Your task to perform on an android device: change notification settings in the gmail app Image 0: 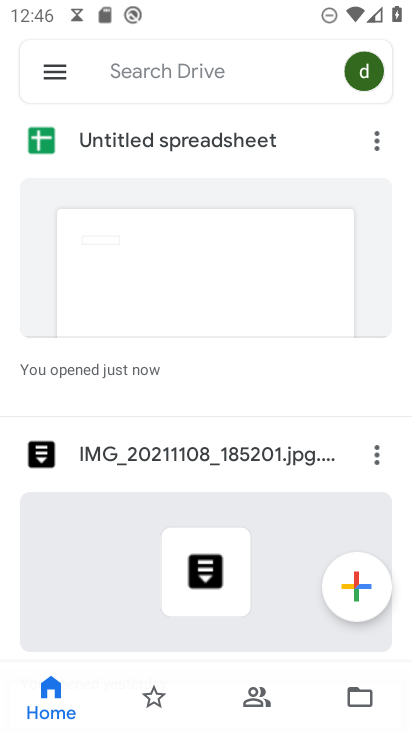
Step 0: press home button
Your task to perform on an android device: change notification settings in the gmail app Image 1: 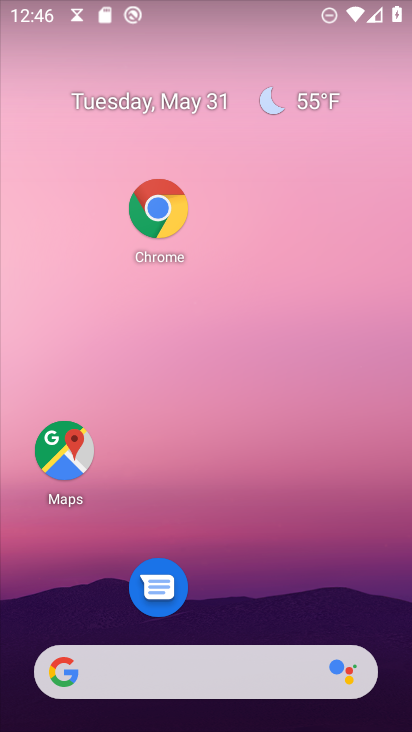
Step 1: drag from (233, 532) to (314, 117)
Your task to perform on an android device: change notification settings in the gmail app Image 2: 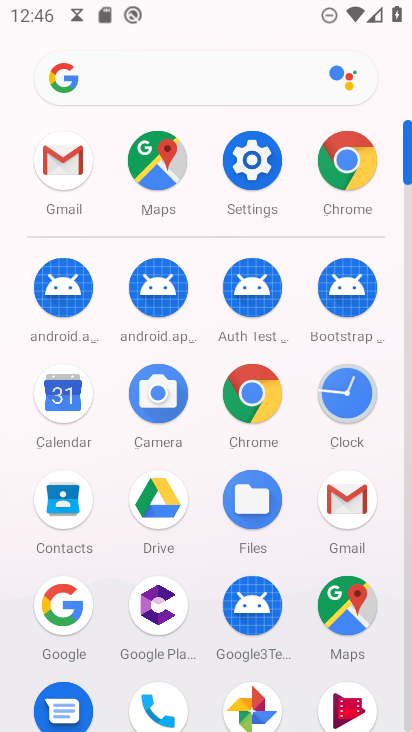
Step 2: click (333, 507)
Your task to perform on an android device: change notification settings in the gmail app Image 3: 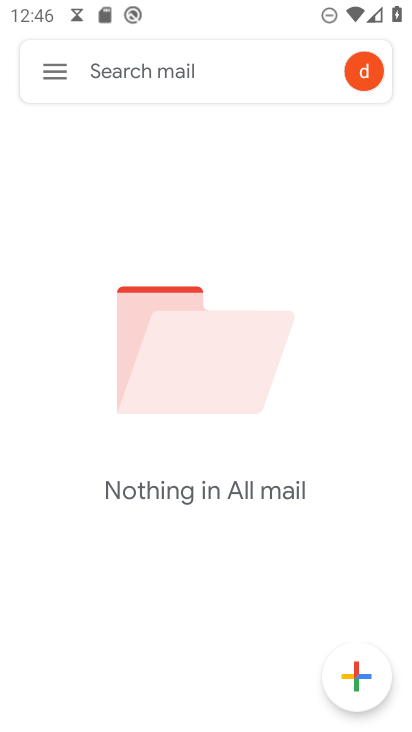
Step 3: click (56, 74)
Your task to perform on an android device: change notification settings in the gmail app Image 4: 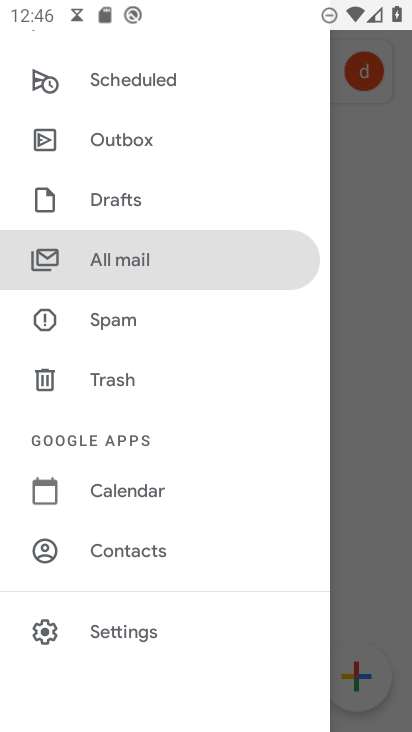
Step 4: click (117, 638)
Your task to perform on an android device: change notification settings in the gmail app Image 5: 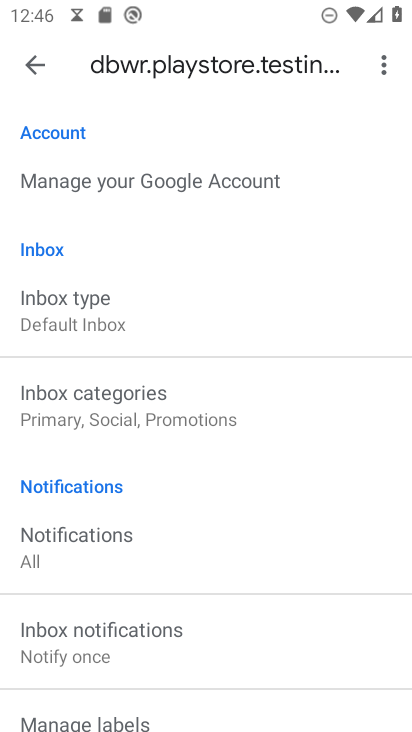
Step 5: click (97, 558)
Your task to perform on an android device: change notification settings in the gmail app Image 6: 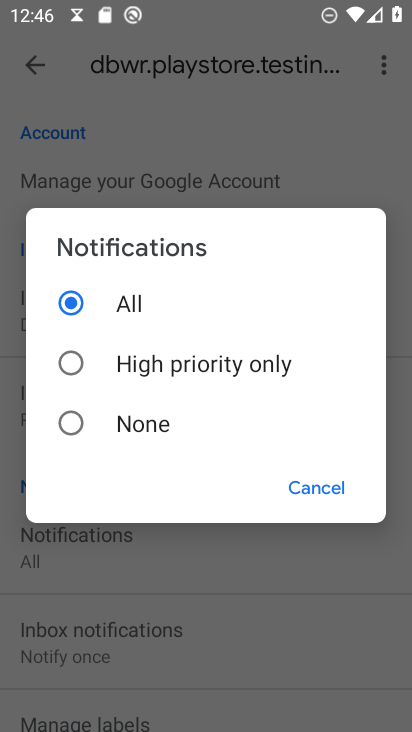
Step 6: click (120, 372)
Your task to perform on an android device: change notification settings in the gmail app Image 7: 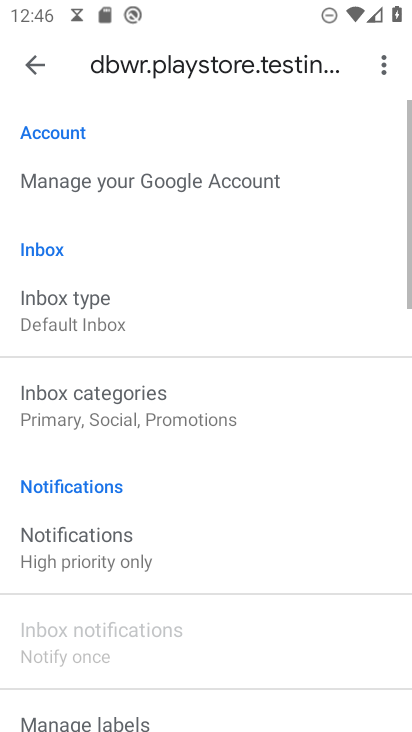
Step 7: click (120, 372)
Your task to perform on an android device: change notification settings in the gmail app Image 8: 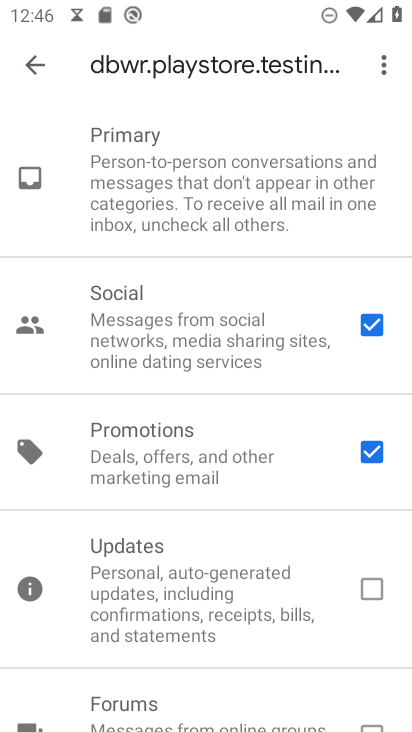
Step 8: task complete